Your task to perform on an android device: Clear the shopping cart on target. Add "alienware aurora" to the cart on target, then select checkout. Image 0: 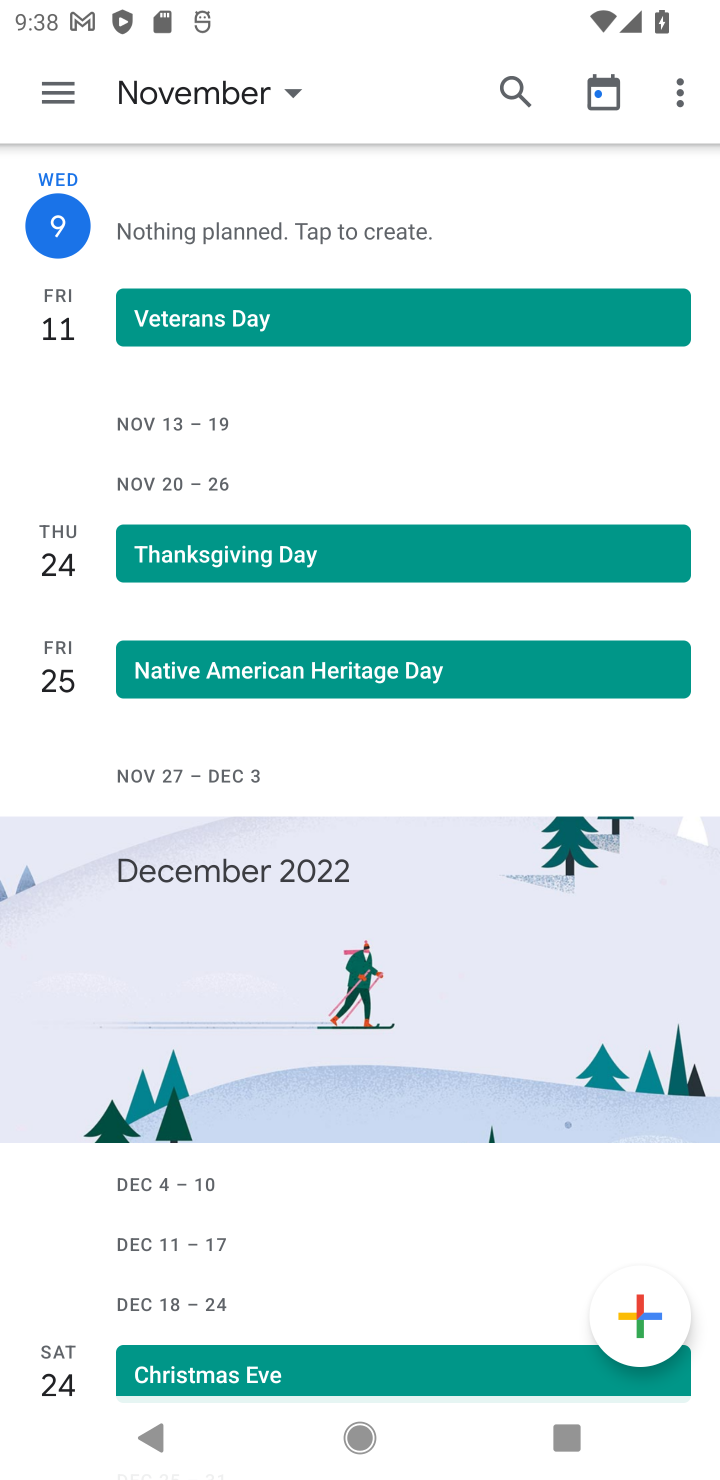
Step 0: press home button
Your task to perform on an android device: Clear the shopping cart on target. Add "alienware aurora" to the cart on target, then select checkout. Image 1: 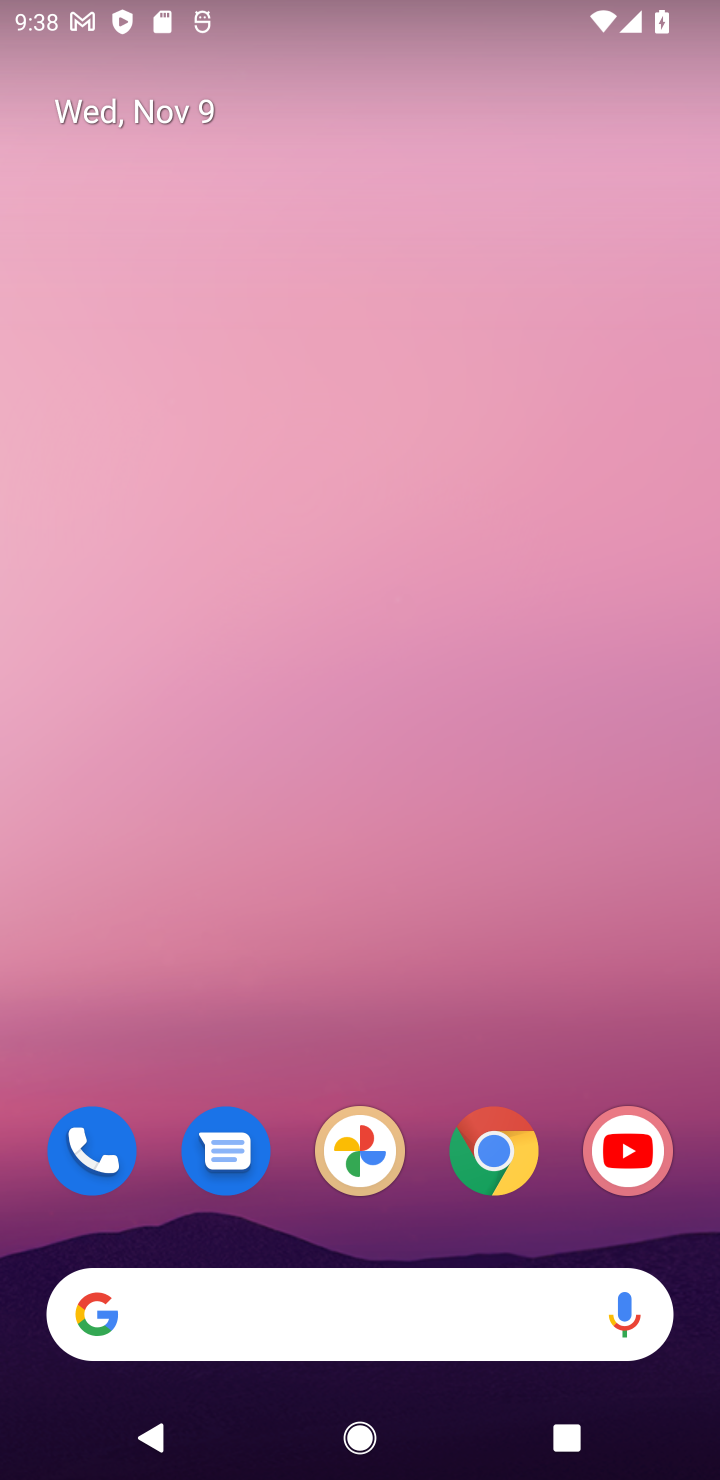
Step 1: click (504, 1154)
Your task to perform on an android device: Clear the shopping cart on target. Add "alienware aurora" to the cart on target, then select checkout. Image 2: 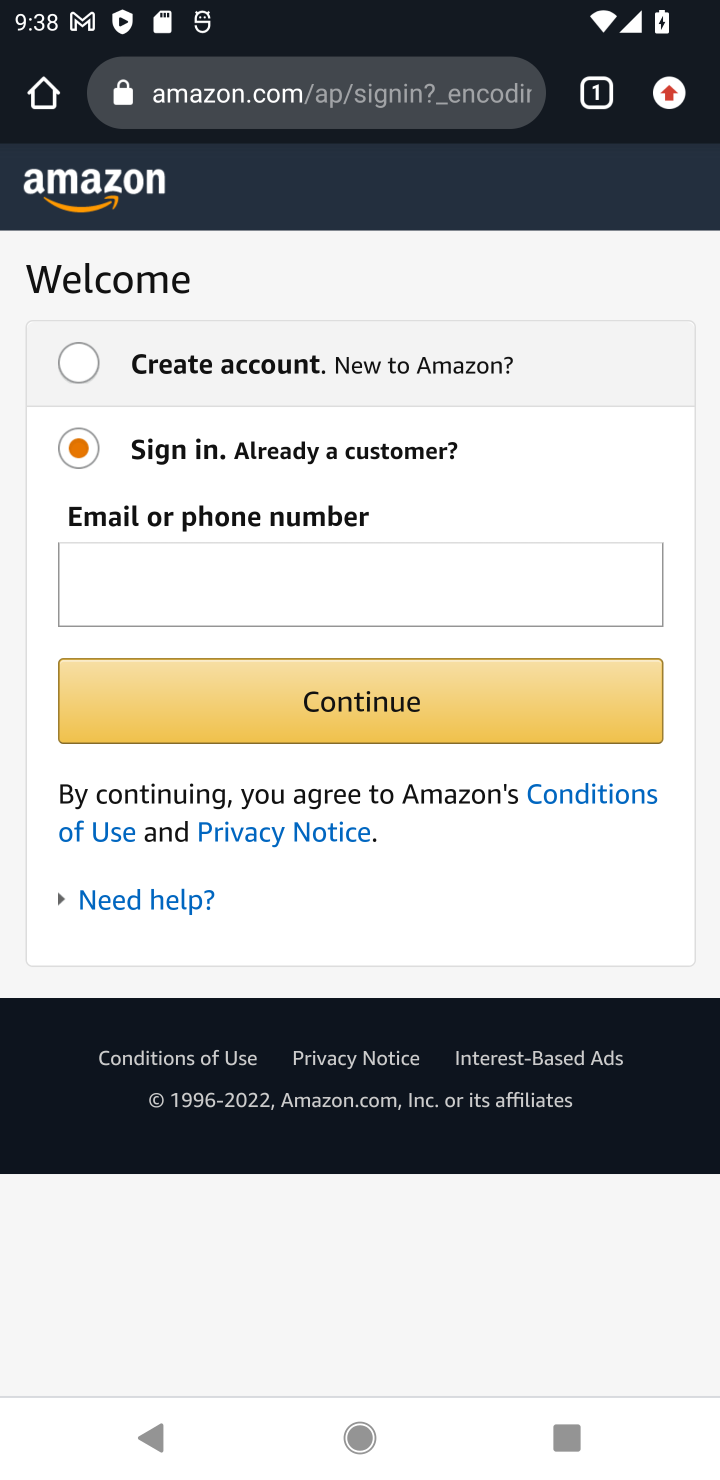
Step 2: click (345, 73)
Your task to perform on an android device: Clear the shopping cart on target. Add "alienware aurora" to the cart on target, then select checkout. Image 3: 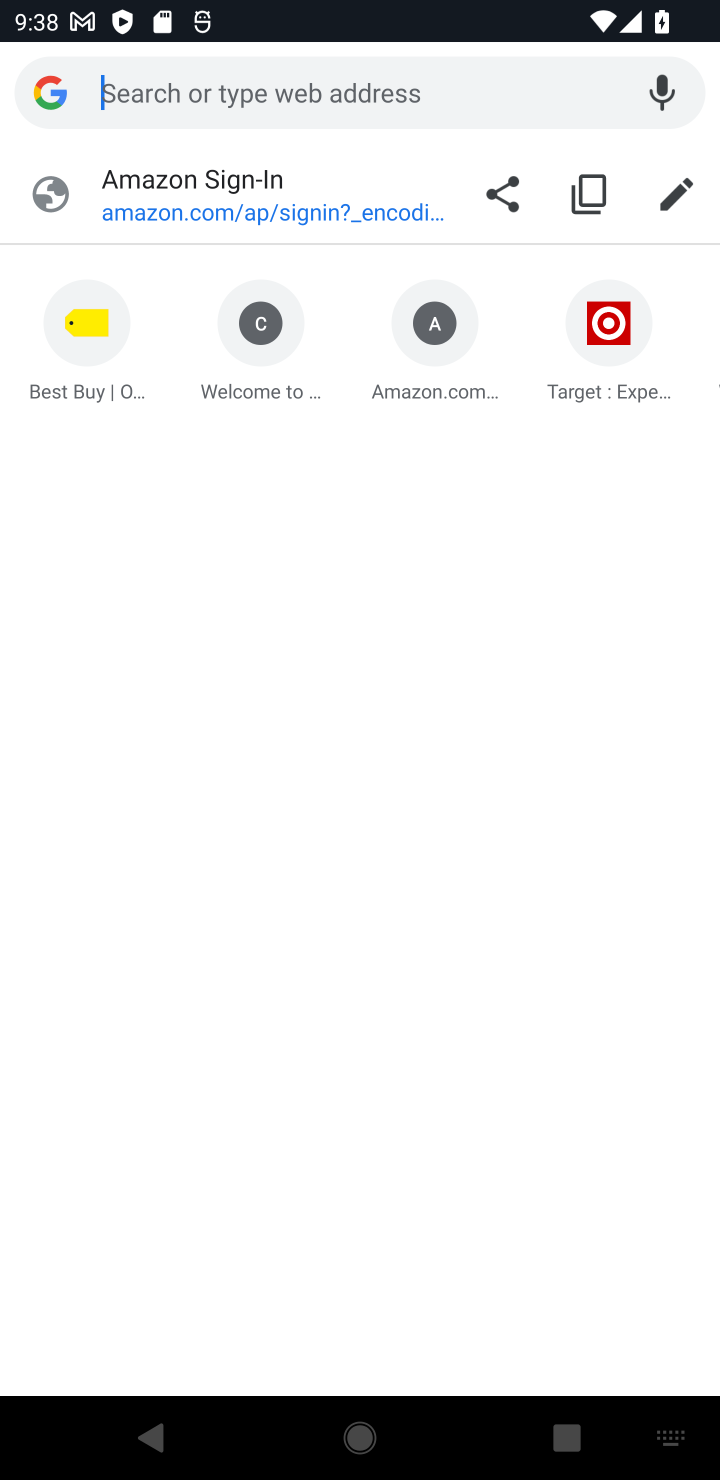
Step 3: type "target"
Your task to perform on an android device: Clear the shopping cart on target. Add "alienware aurora" to the cart on target, then select checkout. Image 4: 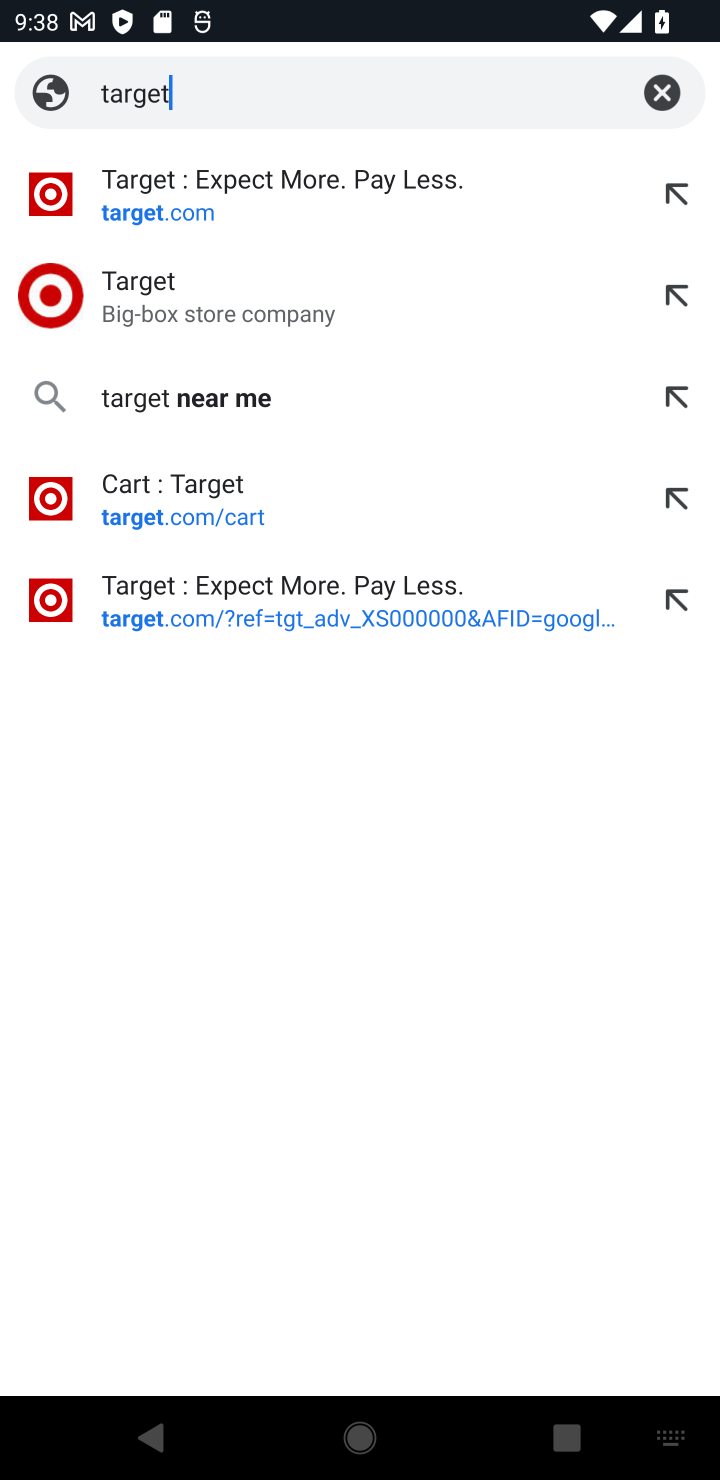
Step 4: click (166, 282)
Your task to perform on an android device: Clear the shopping cart on target. Add "alienware aurora" to the cart on target, then select checkout. Image 5: 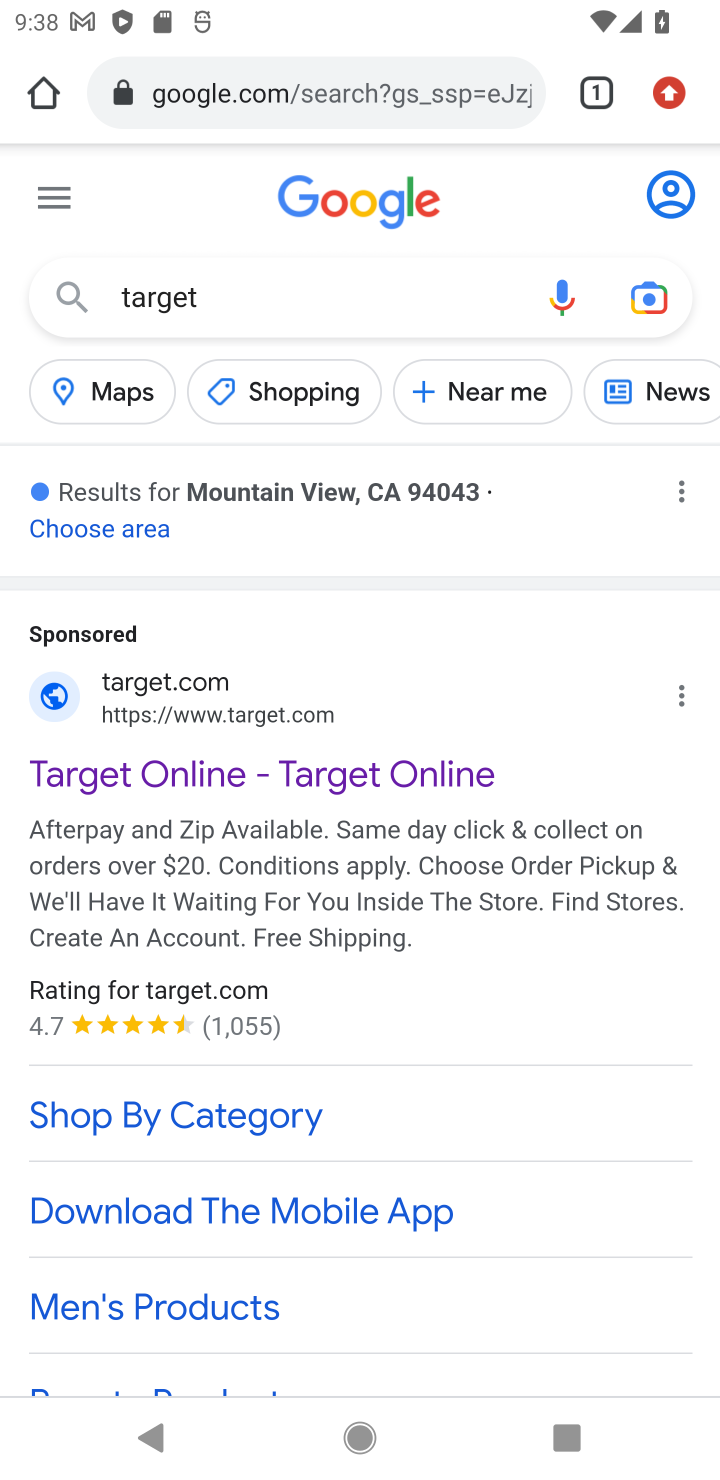
Step 5: click (219, 684)
Your task to perform on an android device: Clear the shopping cart on target. Add "alienware aurora" to the cart on target, then select checkout. Image 6: 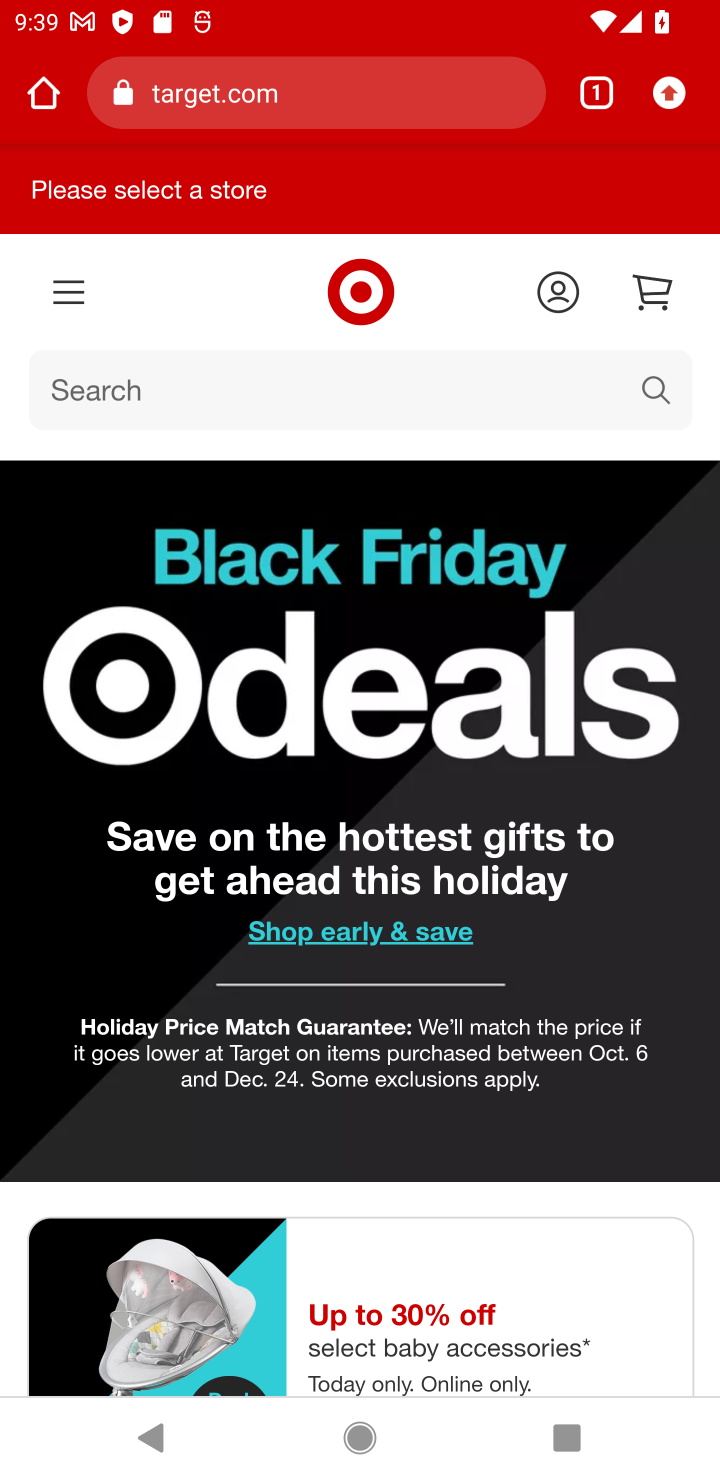
Step 6: click (661, 391)
Your task to perform on an android device: Clear the shopping cart on target. Add "alienware aurora" to the cart on target, then select checkout. Image 7: 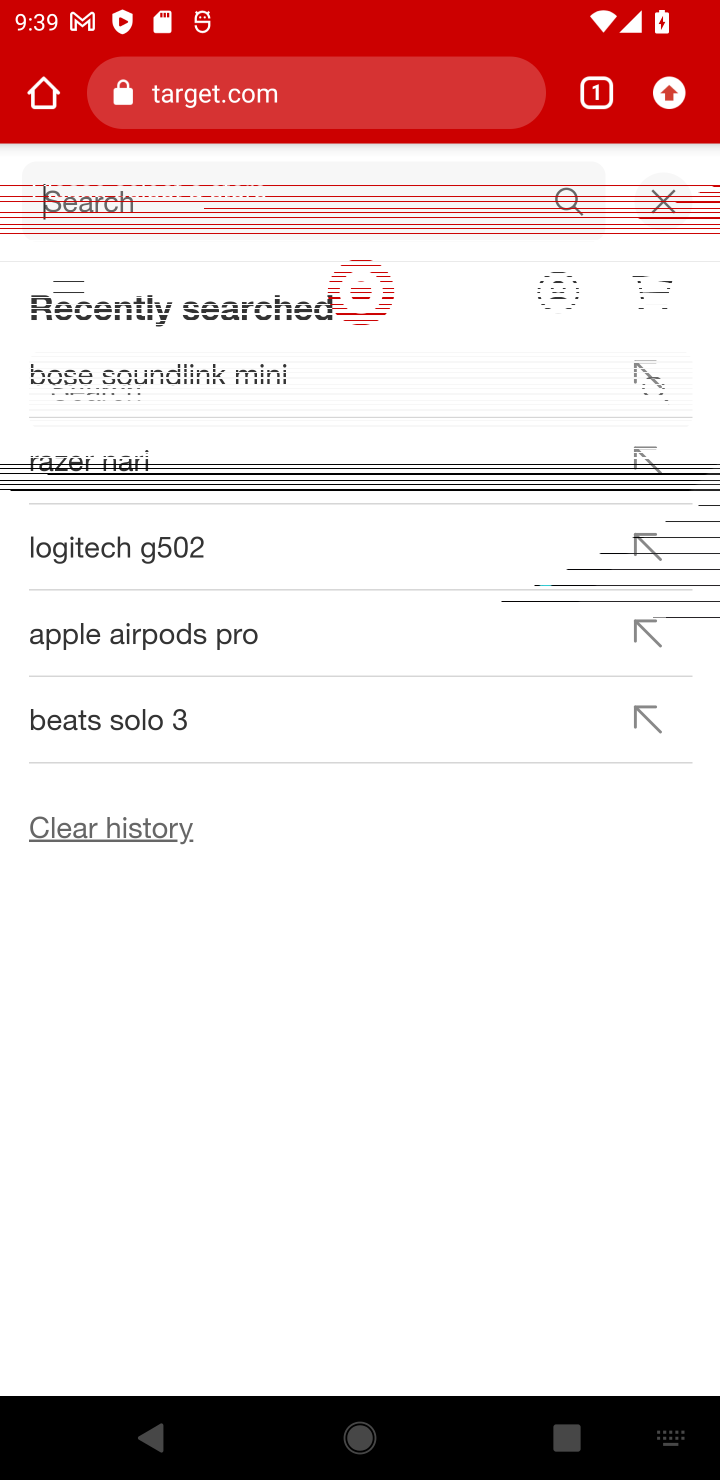
Step 7: type "alienware aurora"
Your task to perform on an android device: Clear the shopping cart on target. Add "alienware aurora" to the cart on target, then select checkout. Image 8: 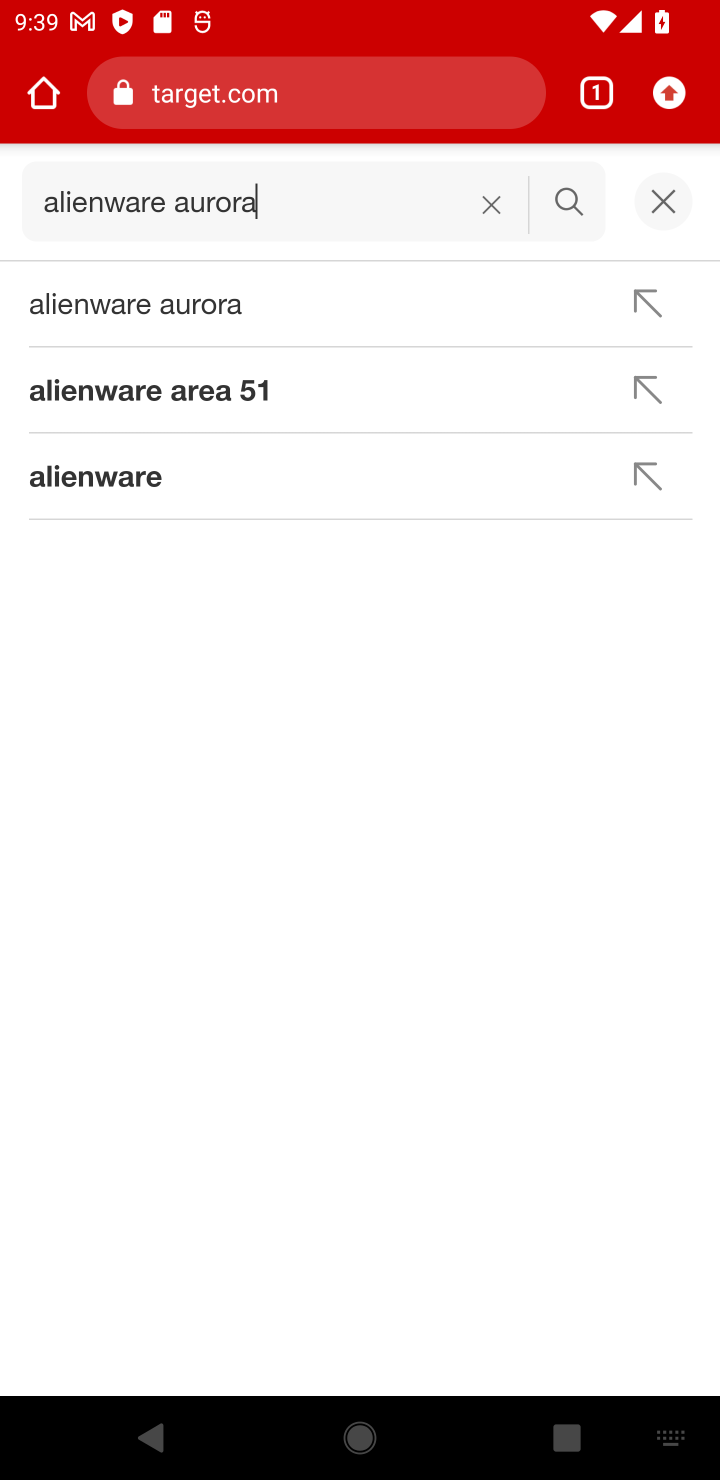
Step 8: click (198, 301)
Your task to perform on an android device: Clear the shopping cart on target. Add "alienware aurora" to the cart on target, then select checkout. Image 9: 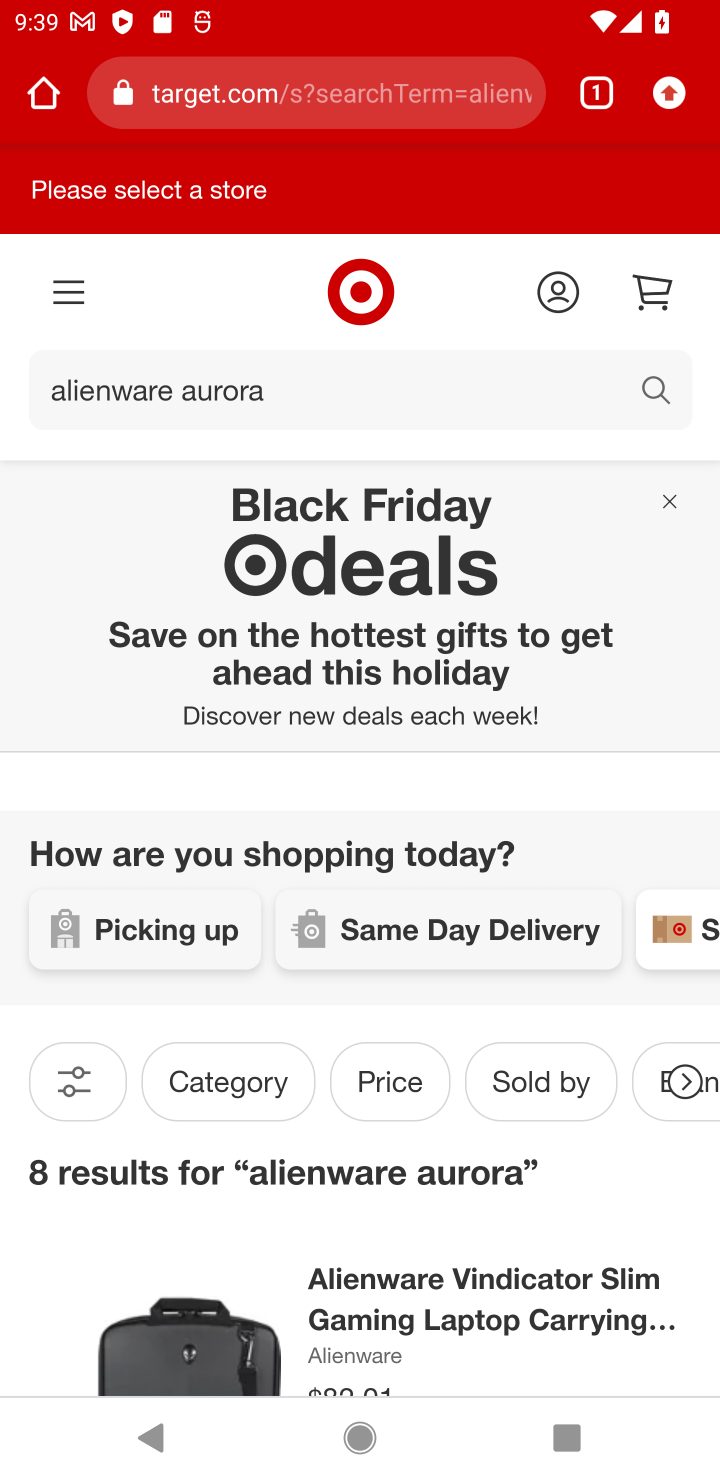
Step 9: task complete